Your task to perform on an android device: Go to display settings Image 0: 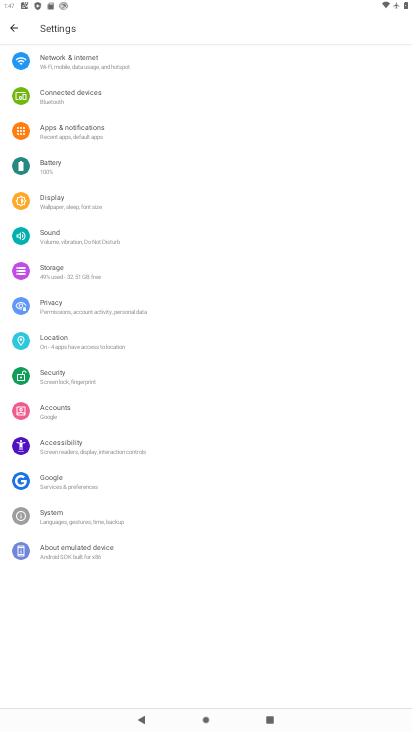
Step 0: click (53, 200)
Your task to perform on an android device: Go to display settings Image 1: 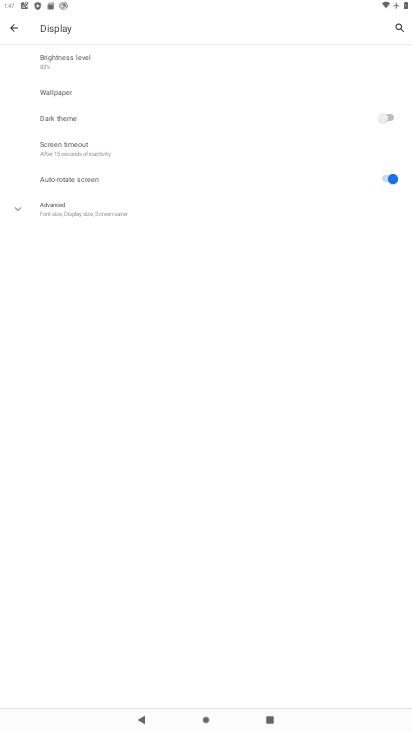
Step 1: task complete